Your task to perform on an android device: Open settings Image 0: 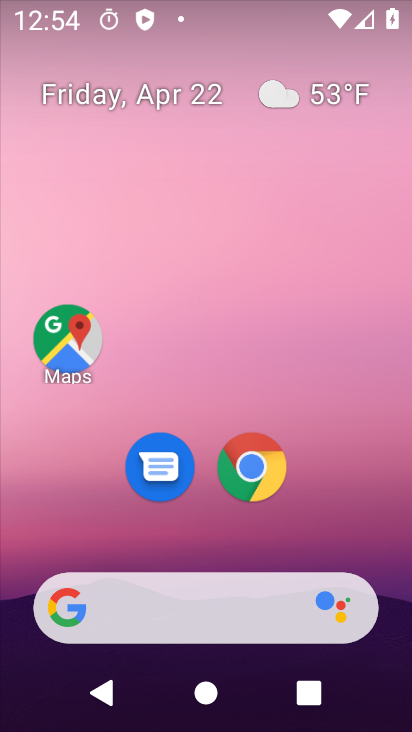
Step 0: drag from (143, 571) to (196, 44)
Your task to perform on an android device: Open settings Image 1: 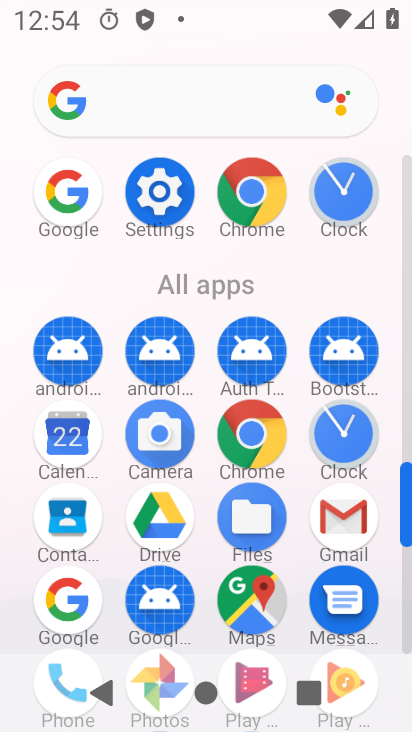
Step 1: drag from (160, 602) to (201, 246)
Your task to perform on an android device: Open settings Image 2: 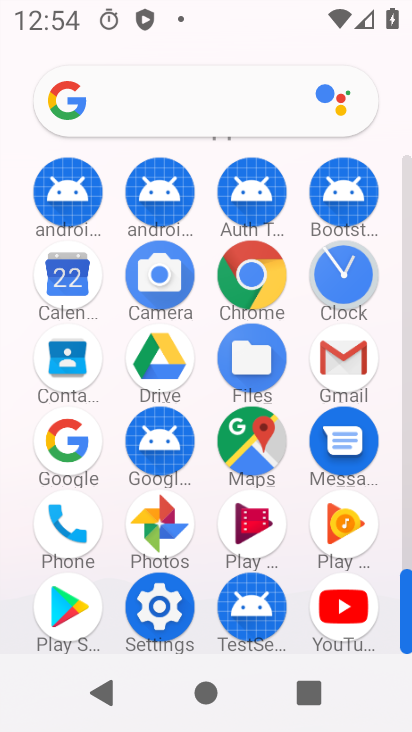
Step 2: click (144, 616)
Your task to perform on an android device: Open settings Image 3: 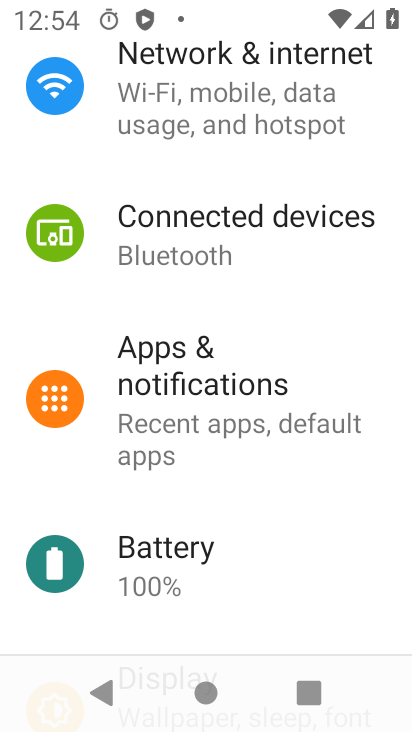
Step 3: task complete